Your task to perform on an android device: turn off picture-in-picture Image 0: 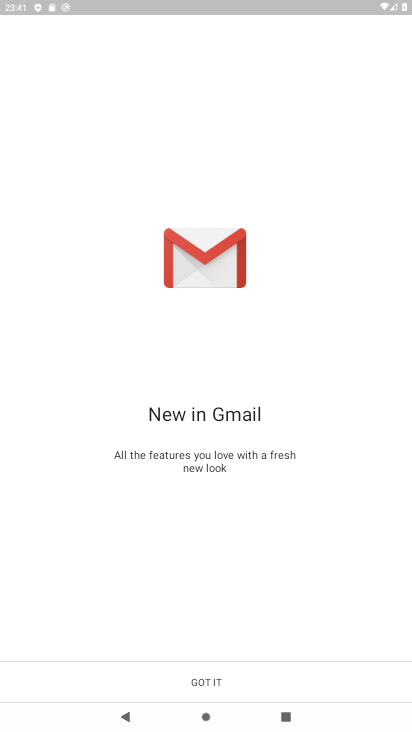
Step 0: press home button
Your task to perform on an android device: turn off picture-in-picture Image 1: 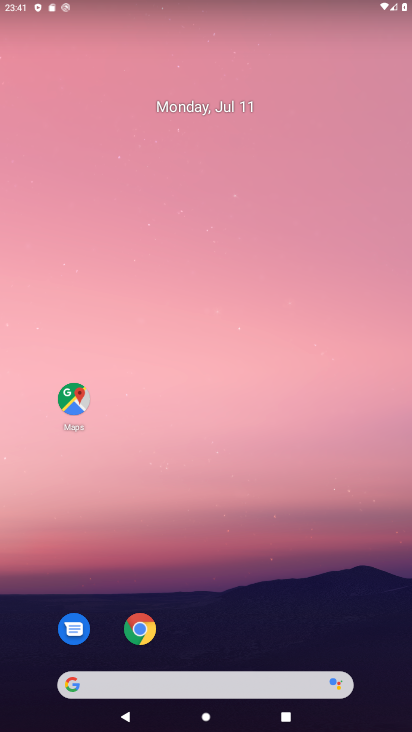
Step 1: drag from (344, 608) to (392, 73)
Your task to perform on an android device: turn off picture-in-picture Image 2: 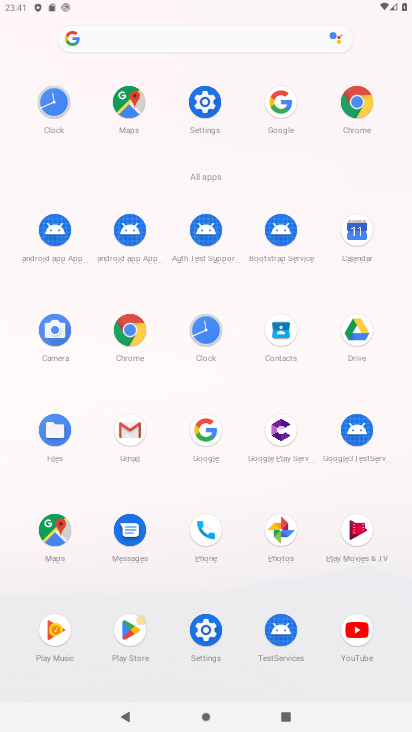
Step 2: click (210, 637)
Your task to perform on an android device: turn off picture-in-picture Image 3: 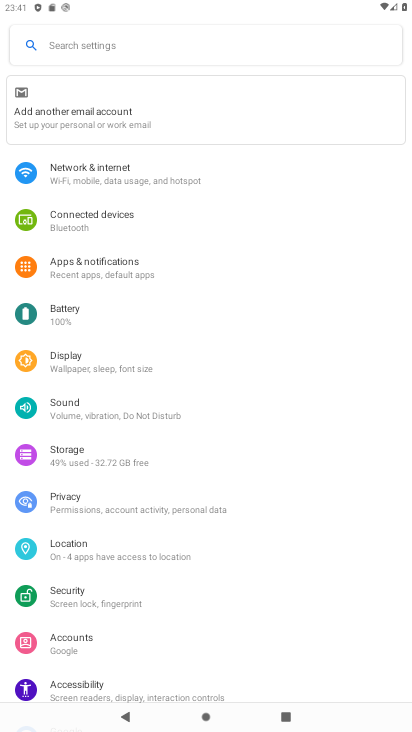
Step 3: click (152, 269)
Your task to perform on an android device: turn off picture-in-picture Image 4: 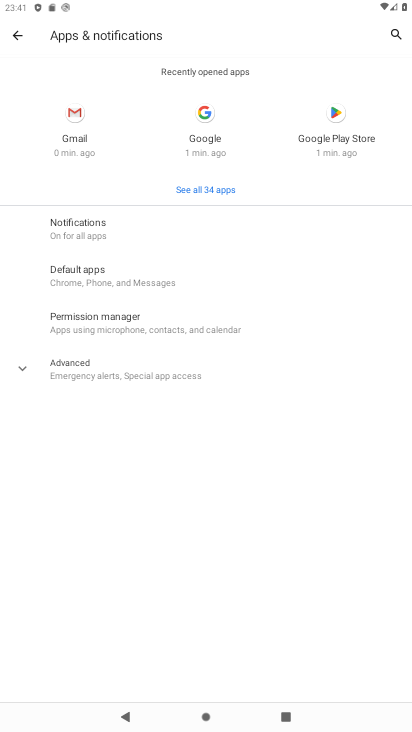
Step 4: click (143, 367)
Your task to perform on an android device: turn off picture-in-picture Image 5: 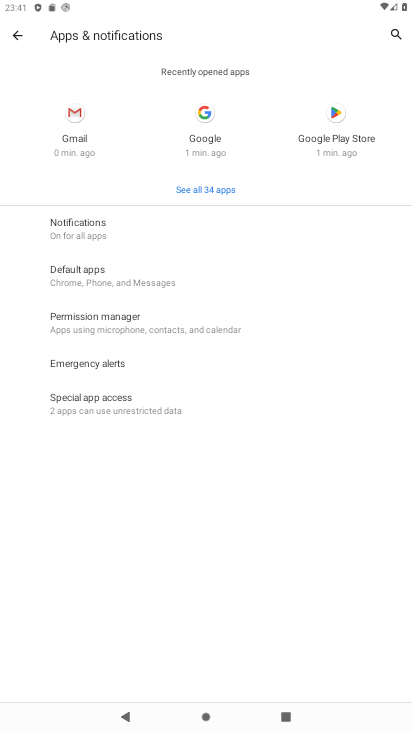
Step 5: click (144, 403)
Your task to perform on an android device: turn off picture-in-picture Image 6: 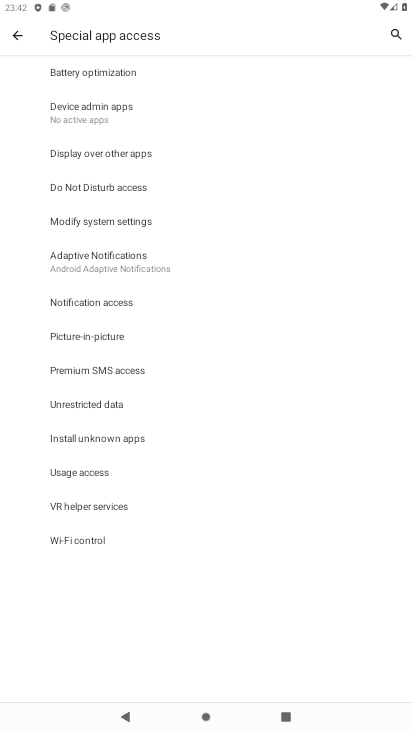
Step 6: click (117, 336)
Your task to perform on an android device: turn off picture-in-picture Image 7: 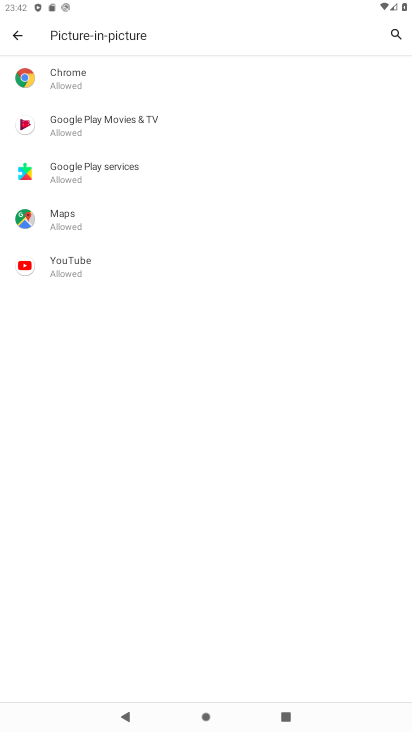
Step 7: click (104, 261)
Your task to perform on an android device: turn off picture-in-picture Image 8: 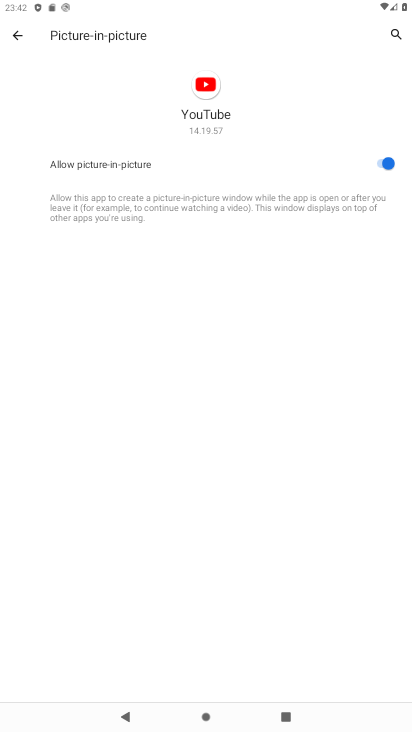
Step 8: click (387, 157)
Your task to perform on an android device: turn off picture-in-picture Image 9: 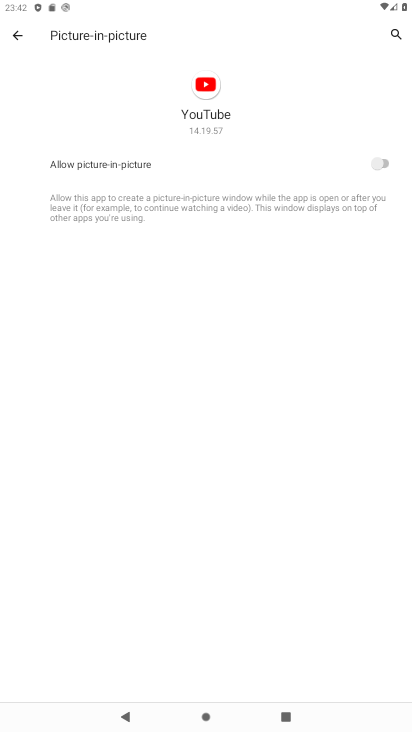
Step 9: task complete